Your task to perform on an android device: empty trash in the gmail app Image 0: 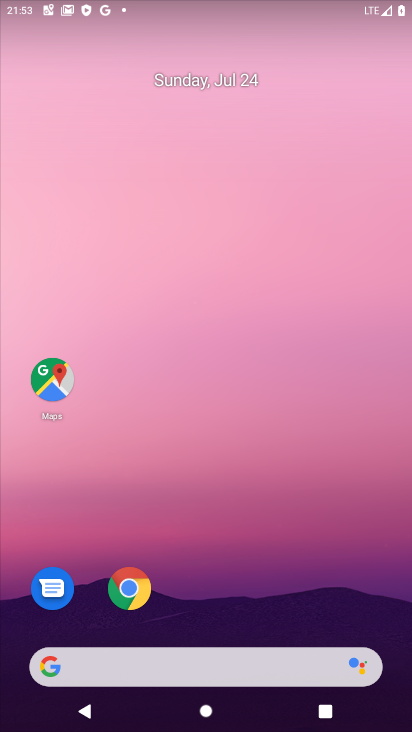
Step 0: drag from (229, 650) to (227, 126)
Your task to perform on an android device: empty trash in the gmail app Image 1: 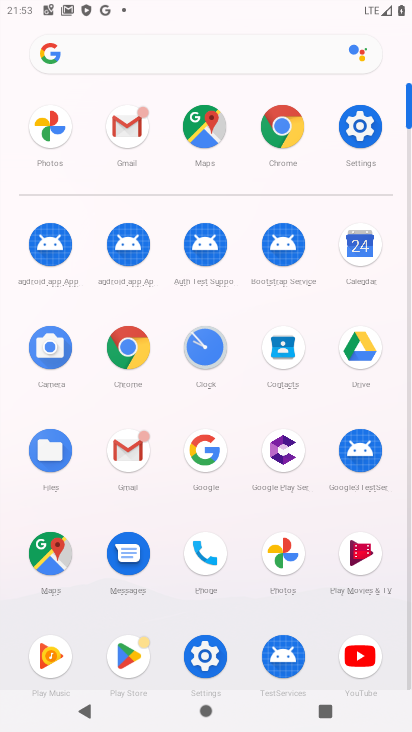
Step 1: click (136, 445)
Your task to perform on an android device: empty trash in the gmail app Image 2: 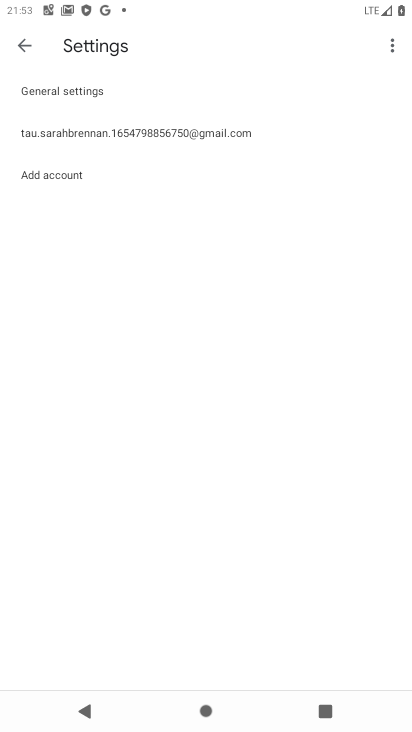
Step 2: click (25, 43)
Your task to perform on an android device: empty trash in the gmail app Image 3: 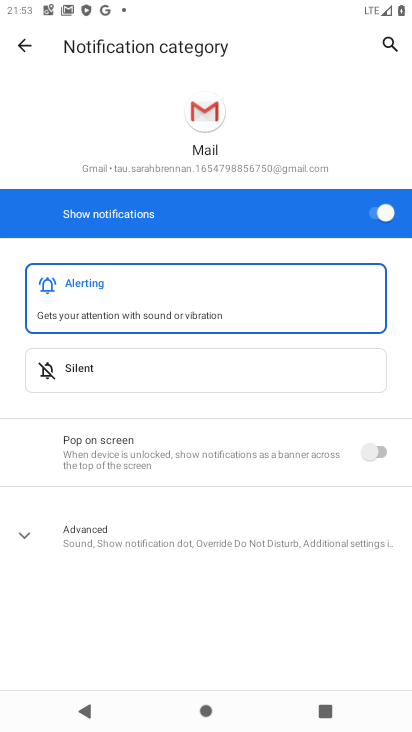
Step 3: click (24, 42)
Your task to perform on an android device: empty trash in the gmail app Image 4: 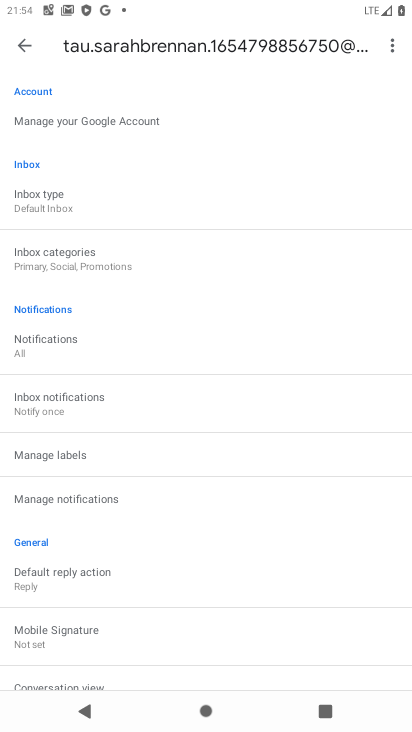
Step 4: click (18, 49)
Your task to perform on an android device: empty trash in the gmail app Image 5: 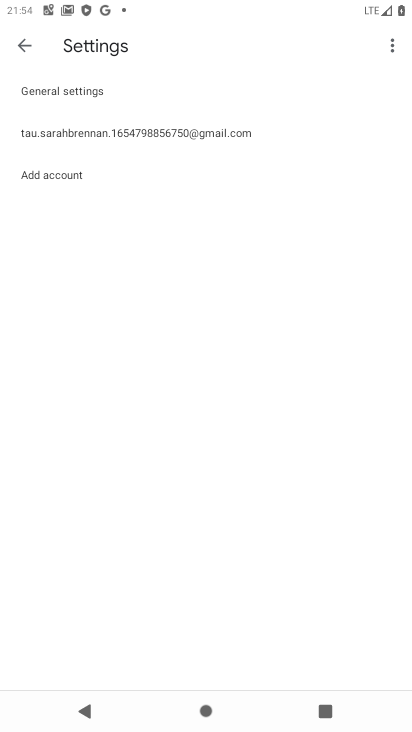
Step 5: click (7, 40)
Your task to perform on an android device: empty trash in the gmail app Image 6: 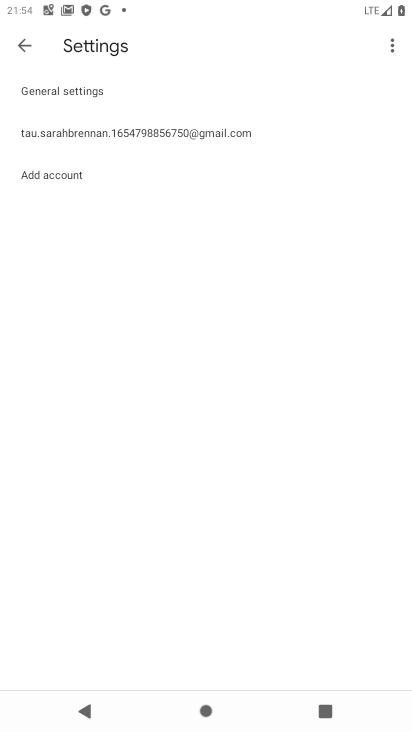
Step 6: click (21, 47)
Your task to perform on an android device: empty trash in the gmail app Image 7: 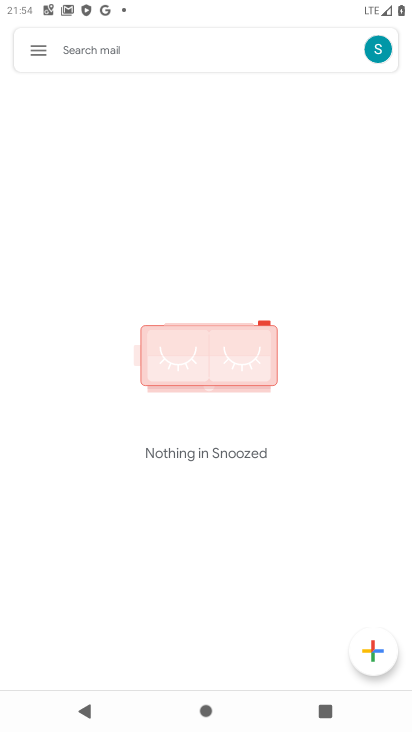
Step 7: click (31, 47)
Your task to perform on an android device: empty trash in the gmail app Image 8: 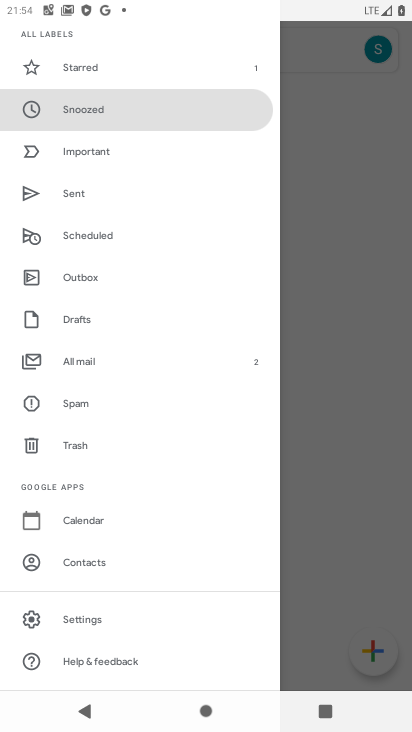
Step 8: click (33, 450)
Your task to perform on an android device: empty trash in the gmail app Image 9: 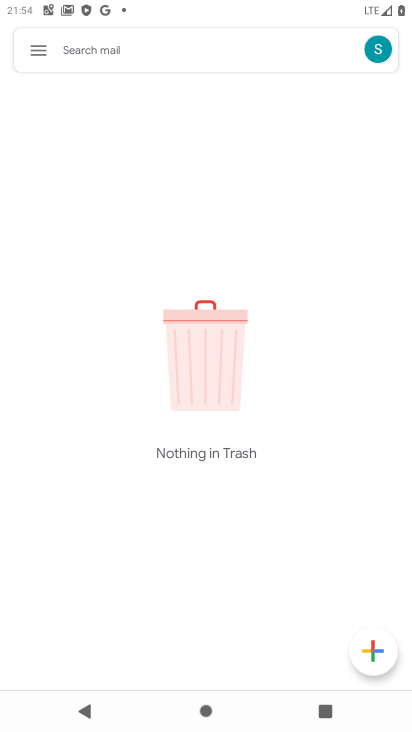
Step 9: task complete